Your task to perform on an android device: open app "Move to iOS" (install if not already installed) Image 0: 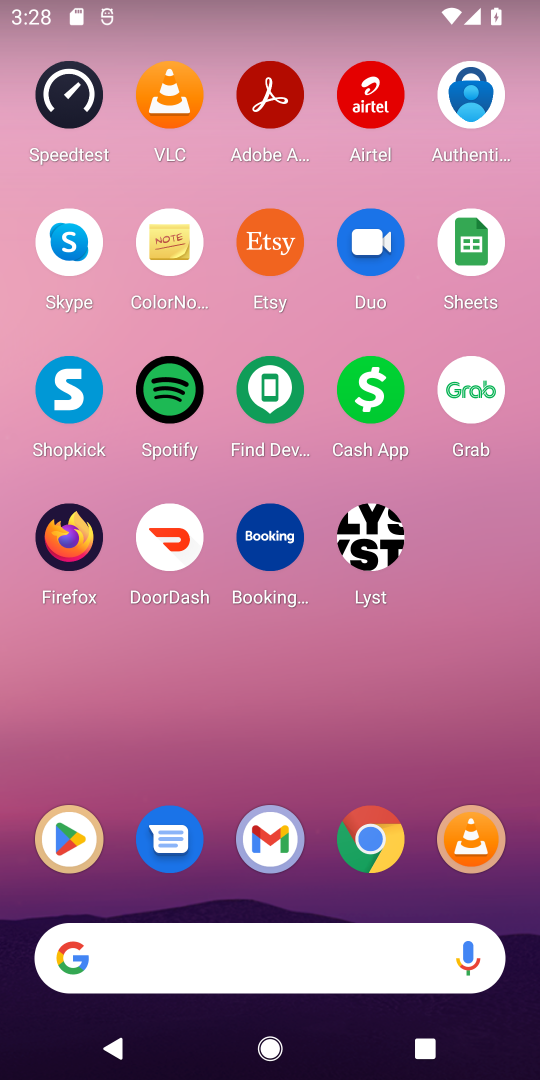
Step 0: click (65, 822)
Your task to perform on an android device: open app "Move to iOS" (install if not already installed) Image 1: 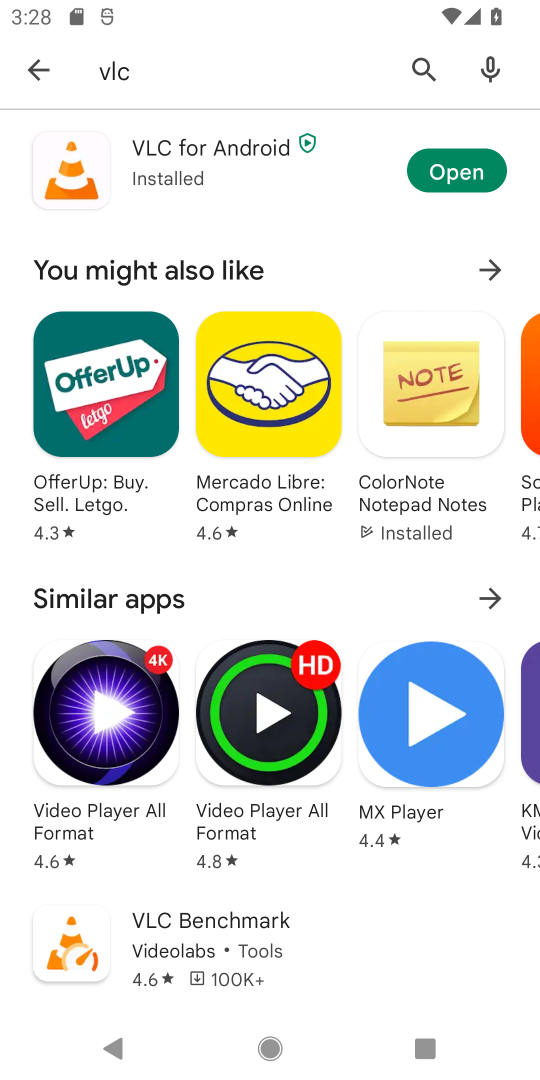
Step 1: click (406, 70)
Your task to perform on an android device: open app "Move to iOS" (install if not already installed) Image 2: 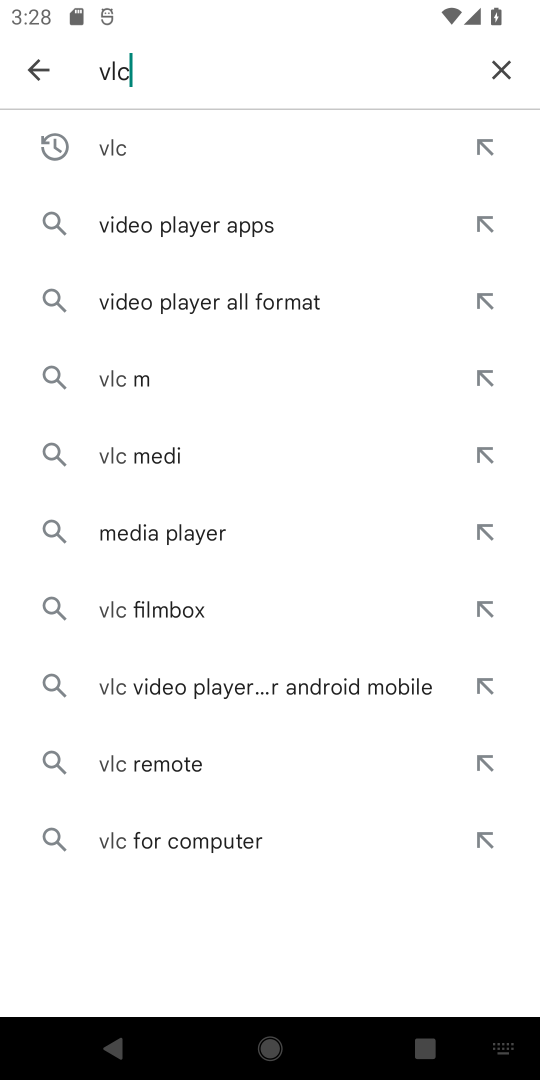
Step 2: click (501, 63)
Your task to perform on an android device: open app "Move to iOS" (install if not already installed) Image 3: 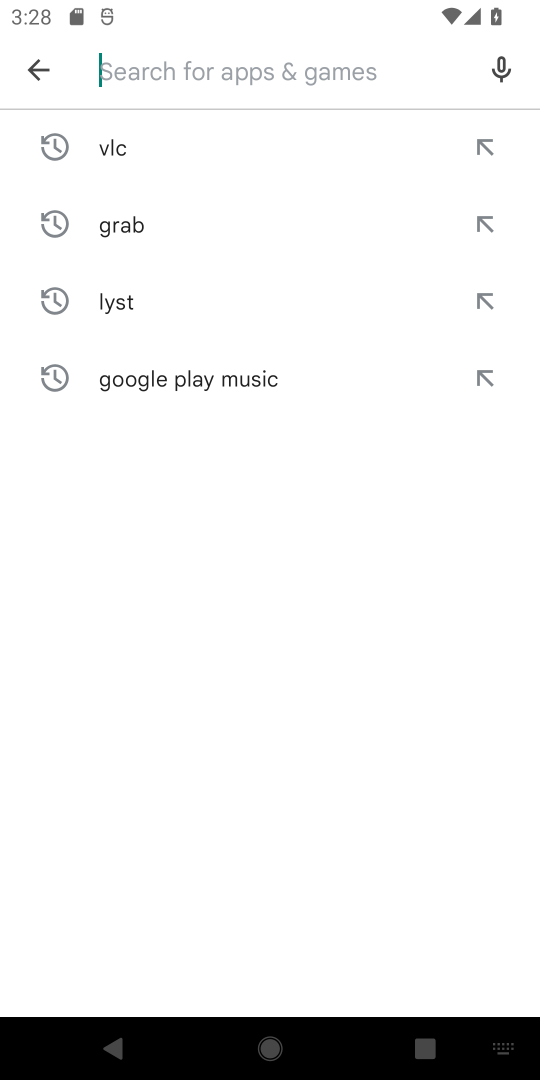
Step 3: type "move iso"
Your task to perform on an android device: open app "Move to iOS" (install if not already installed) Image 4: 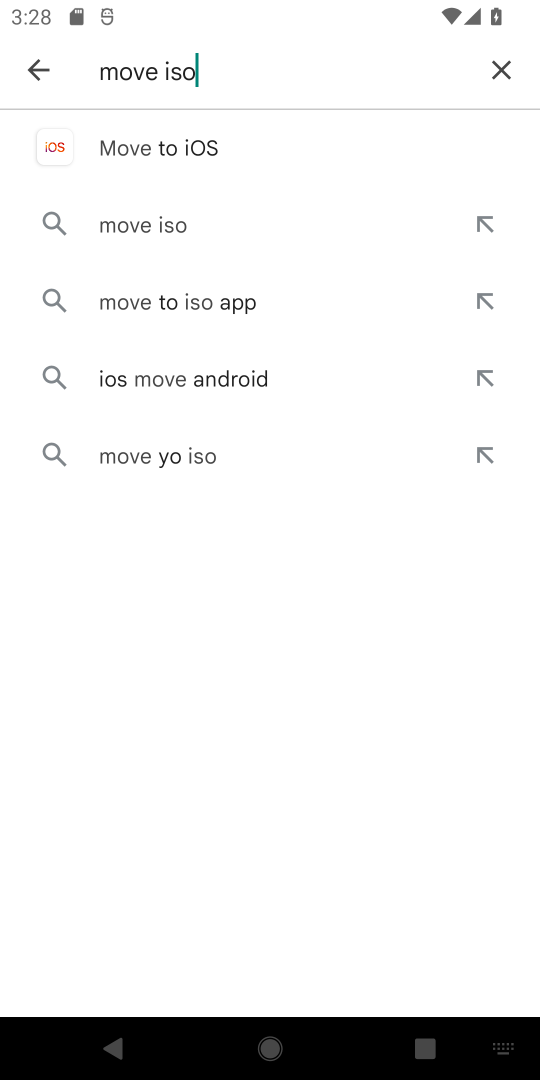
Step 4: click (359, 137)
Your task to perform on an android device: open app "Move to iOS" (install if not already installed) Image 5: 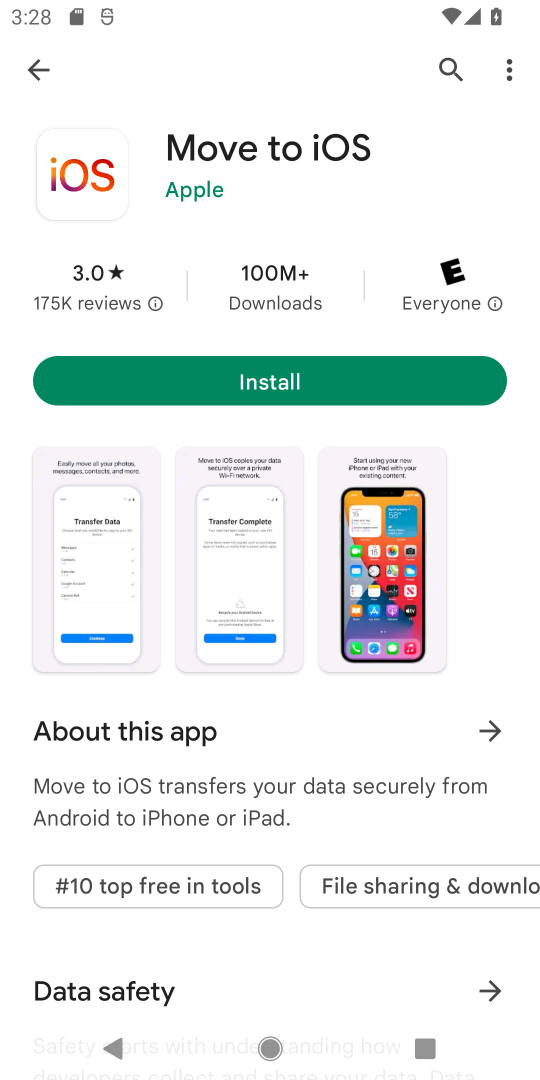
Step 5: click (322, 395)
Your task to perform on an android device: open app "Move to iOS" (install if not already installed) Image 6: 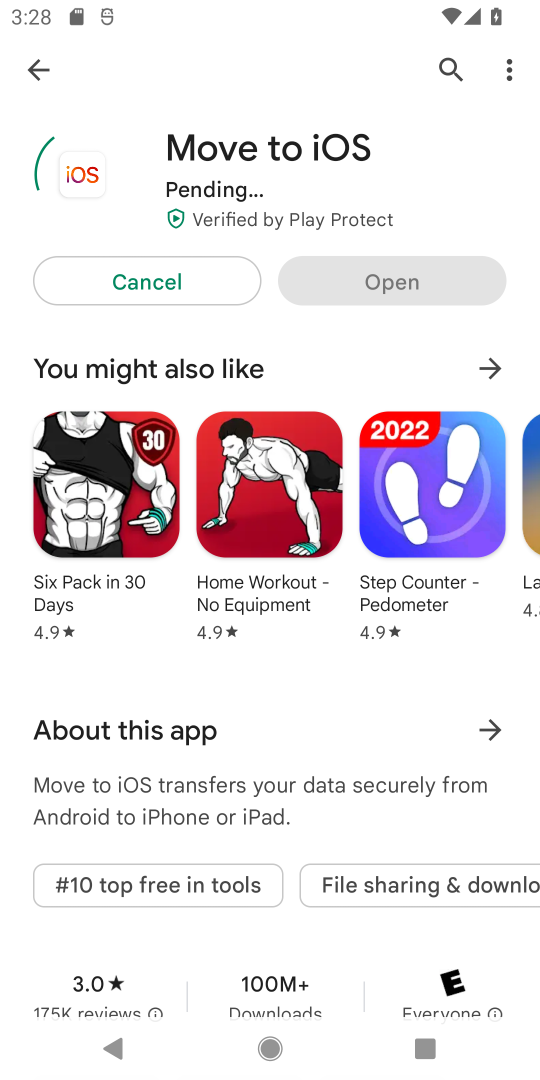
Step 6: task complete